Your task to perform on an android device: turn on priority inbox in the gmail app Image 0: 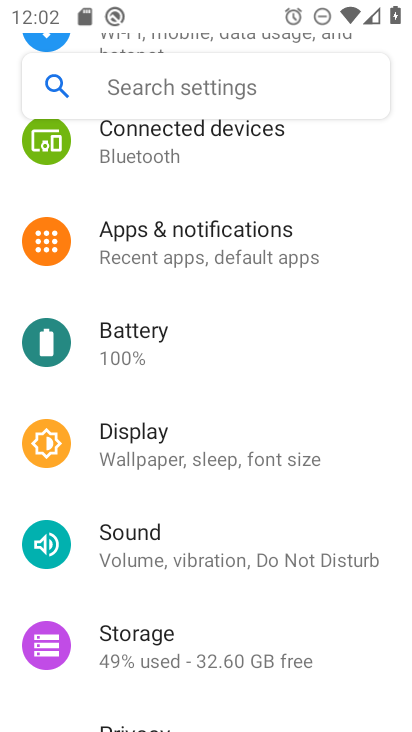
Step 0: press home button
Your task to perform on an android device: turn on priority inbox in the gmail app Image 1: 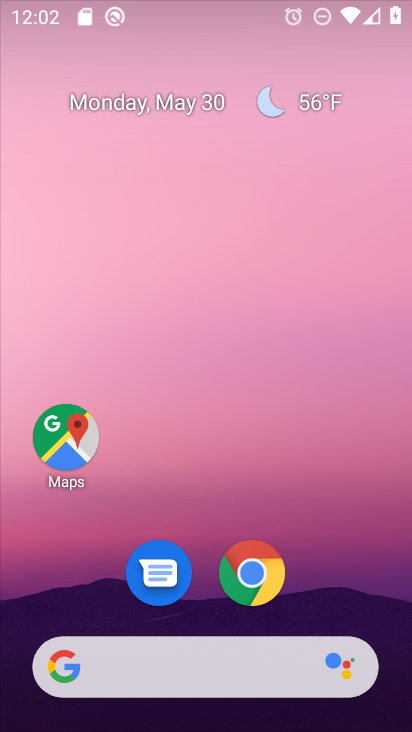
Step 1: drag from (152, 696) to (83, 20)
Your task to perform on an android device: turn on priority inbox in the gmail app Image 2: 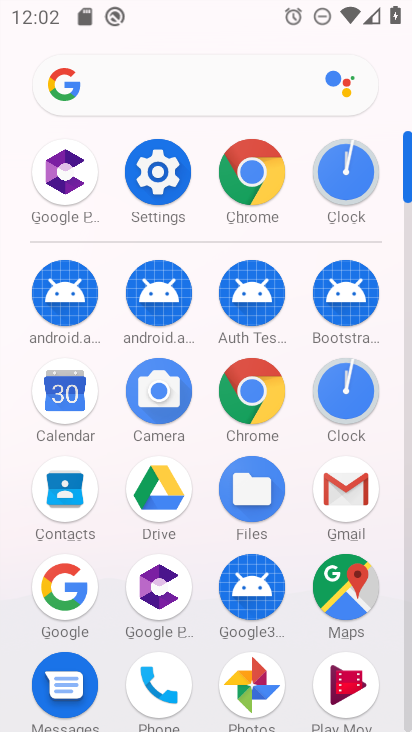
Step 2: click (361, 493)
Your task to perform on an android device: turn on priority inbox in the gmail app Image 3: 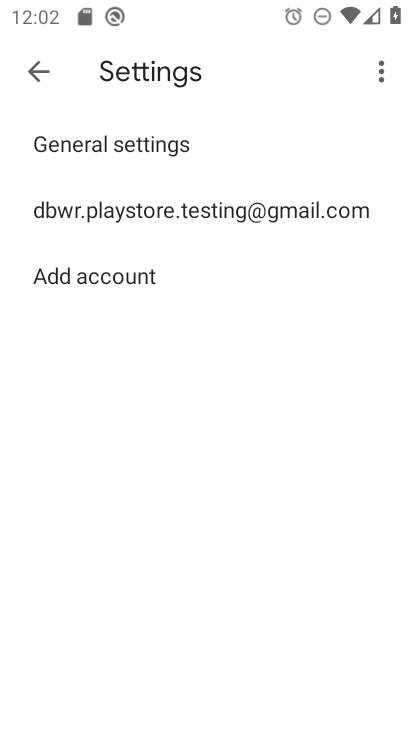
Step 3: click (133, 221)
Your task to perform on an android device: turn on priority inbox in the gmail app Image 4: 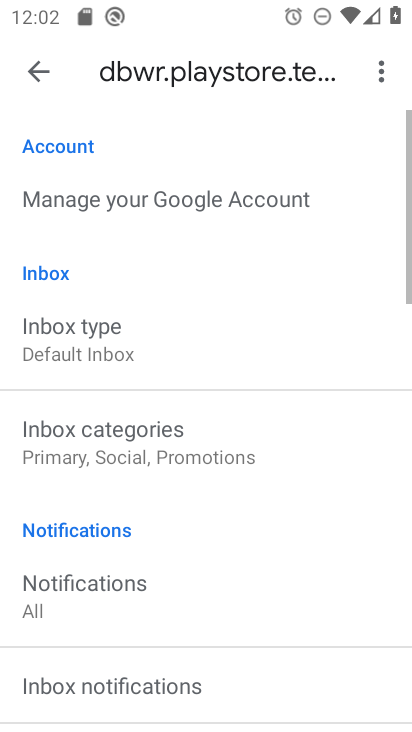
Step 4: click (93, 332)
Your task to perform on an android device: turn on priority inbox in the gmail app Image 5: 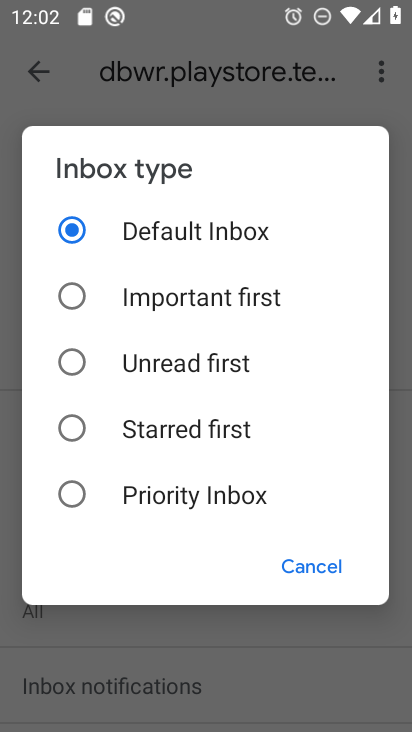
Step 5: click (80, 502)
Your task to perform on an android device: turn on priority inbox in the gmail app Image 6: 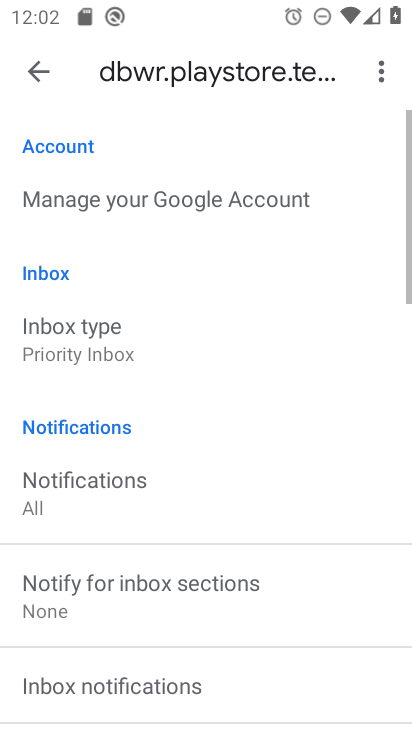
Step 6: task complete